Your task to perform on an android device: Clear the cart on bestbuy. Add razer blade to the cart on bestbuy, then select checkout. Image 0: 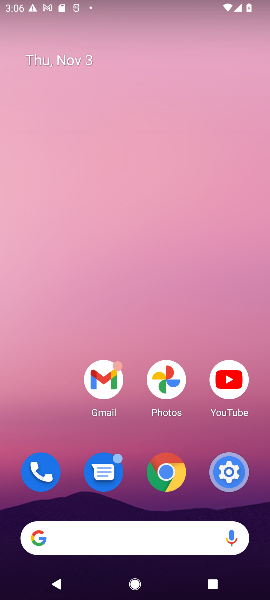
Step 0: click (100, 537)
Your task to perform on an android device: Clear the cart on bestbuy. Add razer blade to the cart on bestbuy, then select checkout. Image 1: 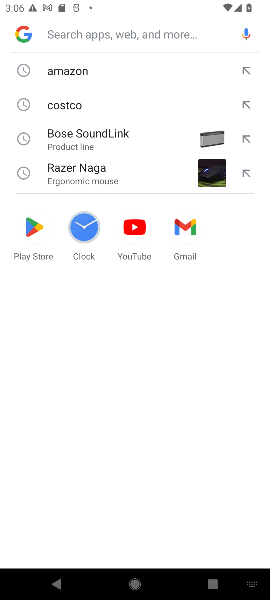
Step 1: type "bestbuy"
Your task to perform on an android device: Clear the cart on bestbuy. Add razer blade to the cart on bestbuy, then select checkout. Image 2: 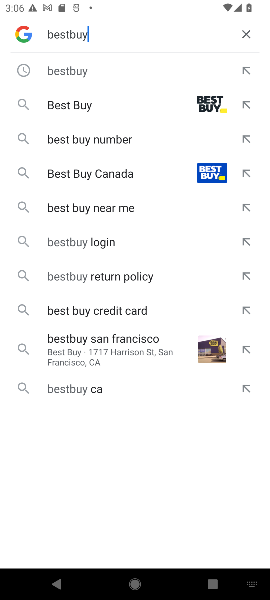
Step 2: click (183, 96)
Your task to perform on an android device: Clear the cart on bestbuy. Add razer blade to the cart on bestbuy, then select checkout. Image 3: 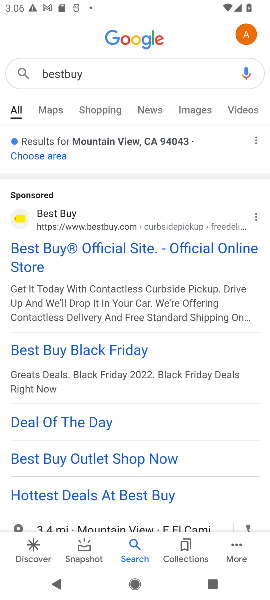
Step 3: click (59, 245)
Your task to perform on an android device: Clear the cart on bestbuy. Add razer blade to the cart on bestbuy, then select checkout. Image 4: 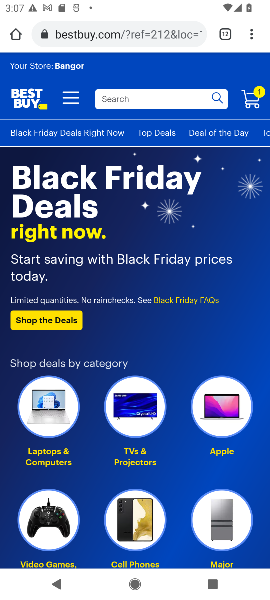
Step 4: click (132, 98)
Your task to perform on an android device: Clear the cart on bestbuy. Add razer blade to the cart on bestbuy, then select checkout. Image 5: 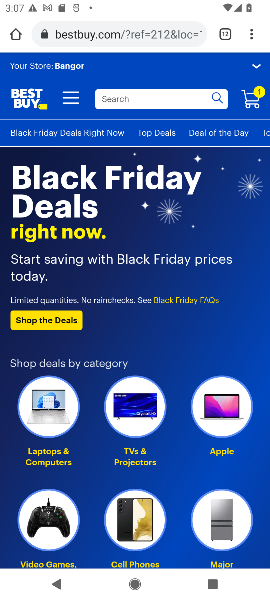
Step 5: type "razer blade"
Your task to perform on an android device: Clear the cart on bestbuy. Add razer blade to the cart on bestbuy, then select checkout. Image 6: 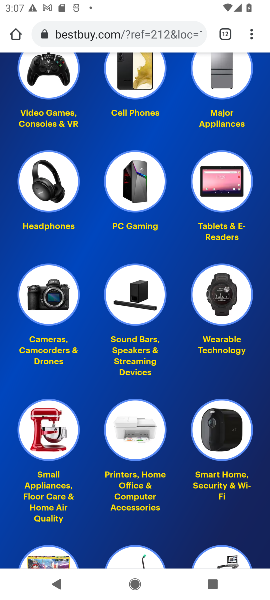
Step 6: drag from (88, 184) to (88, 569)
Your task to perform on an android device: Clear the cart on bestbuy. Add razer blade to the cart on bestbuy, then select checkout. Image 7: 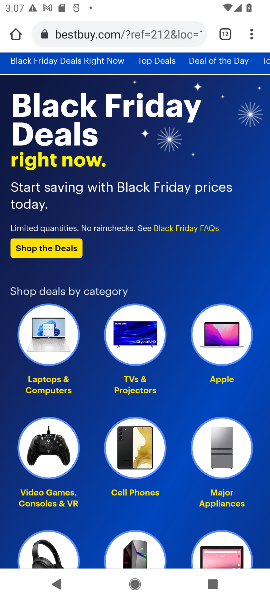
Step 7: click (147, 73)
Your task to perform on an android device: Clear the cart on bestbuy. Add razer blade to the cart on bestbuy, then select checkout. Image 8: 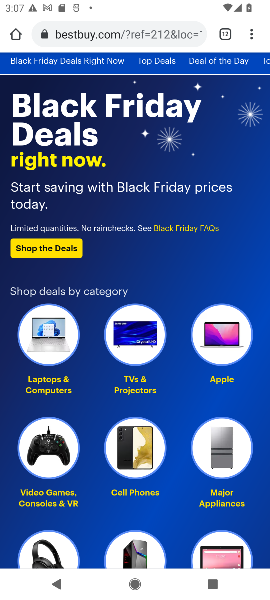
Step 8: drag from (146, 111) to (206, 561)
Your task to perform on an android device: Clear the cart on bestbuy. Add razer blade to the cart on bestbuy, then select checkout. Image 9: 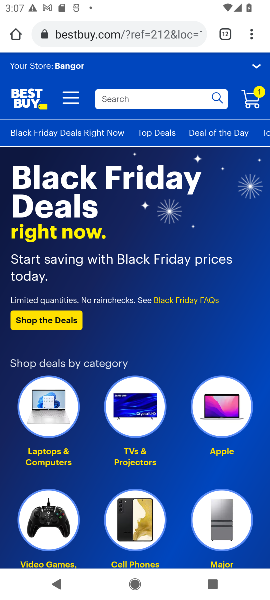
Step 9: click (124, 108)
Your task to perform on an android device: Clear the cart on bestbuy. Add razer blade to the cart on bestbuy, then select checkout. Image 10: 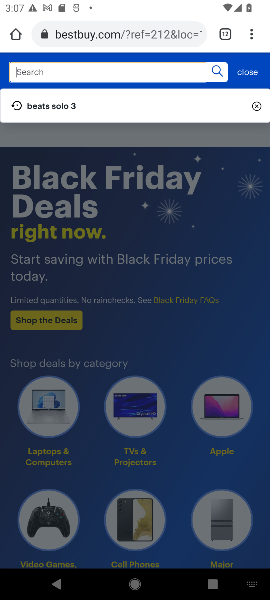
Step 10: click (69, 104)
Your task to perform on an android device: Clear the cart on bestbuy. Add razer blade to the cart on bestbuy, then select checkout. Image 11: 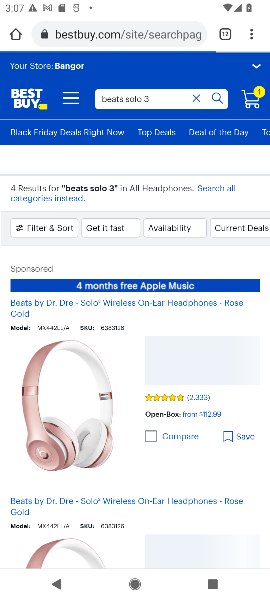
Step 11: click (194, 393)
Your task to perform on an android device: Clear the cart on bestbuy. Add razer blade to the cart on bestbuy, then select checkout. Image 12: 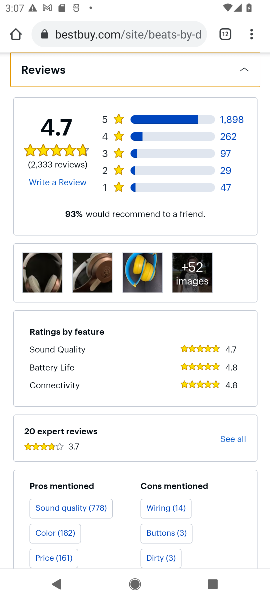
Step 12: task complete